Your task to perform on an android device: turn on the 24-hour format for clock Image 0: 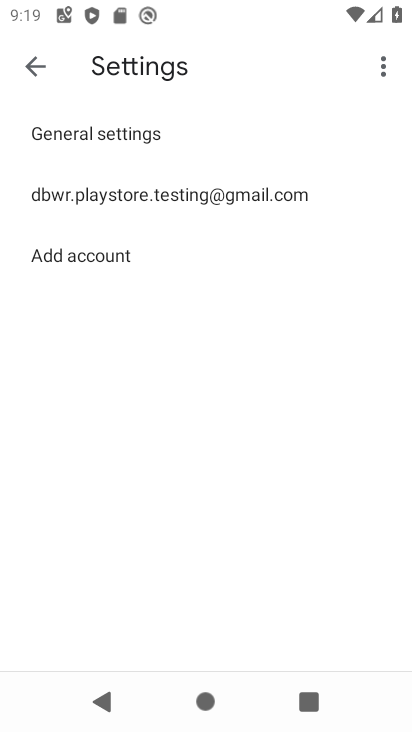
Step 0: press home button
Your task to perform on an android device: turn on the 24-hour format for clock Image 1: 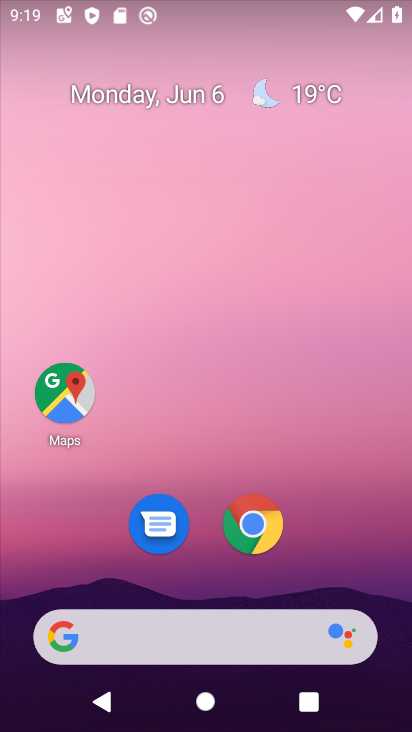
Step 1: drag from (329, 476) to (221, 16)
Your task to perform on an android device: turn on the 24-hour format for clock Image 2: 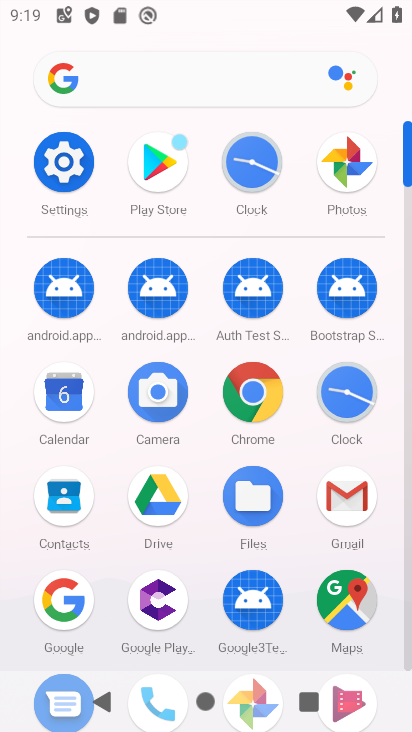
Step 2: click (349, 400)
Your task to perform on an android device: turn on the 24-hour format for clock Image 3: 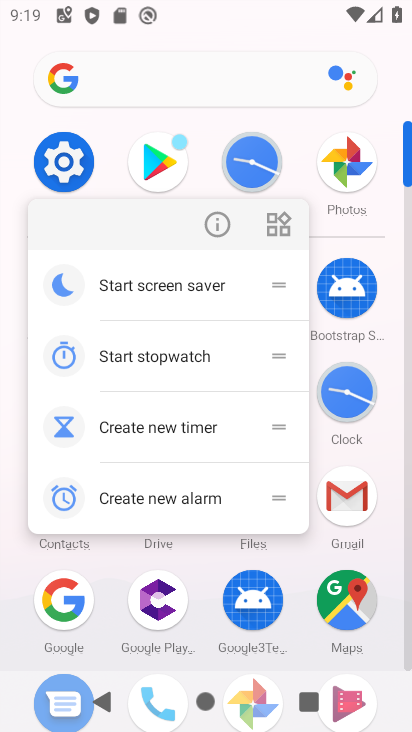
Step 3: click (388, 360)
Your task to perform on an android device: turn on the 24-hour format for clock Image 4: 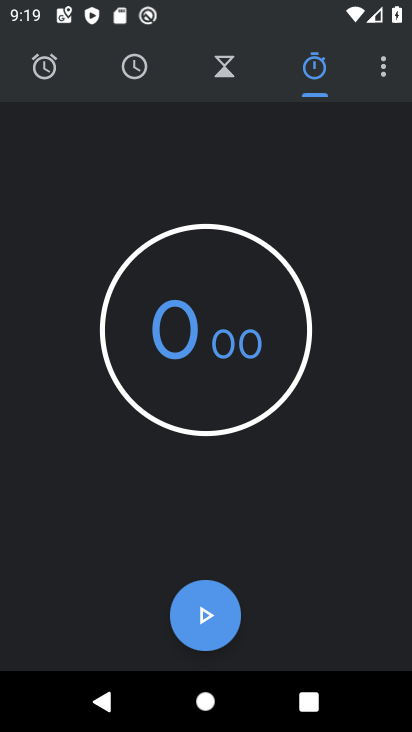
Step 4: click (376, 64)
Your task to perform on an android device: turn on the 24-hour format for clock Image 5: 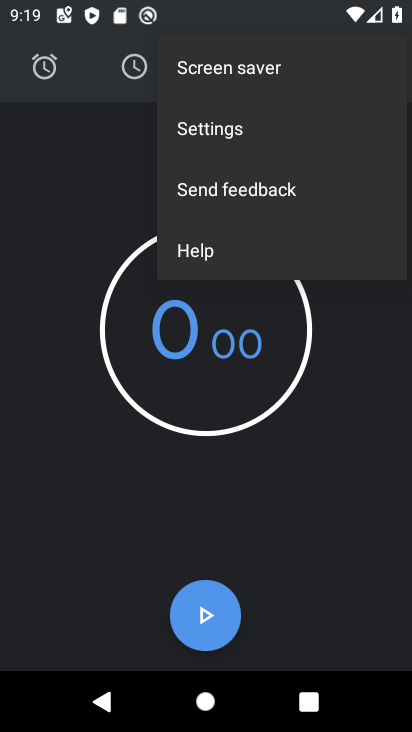
Step 5: click (315, 113)
Your task to perform on an android device: turn on the 24-hour format for clock Image 6: 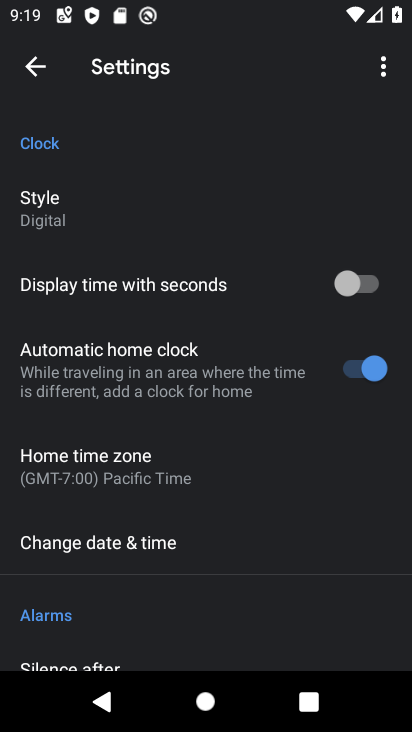
Step 6: click (231, 554)
Your task to perform on an android device: turn on the 24-hour format for clock Image 7: 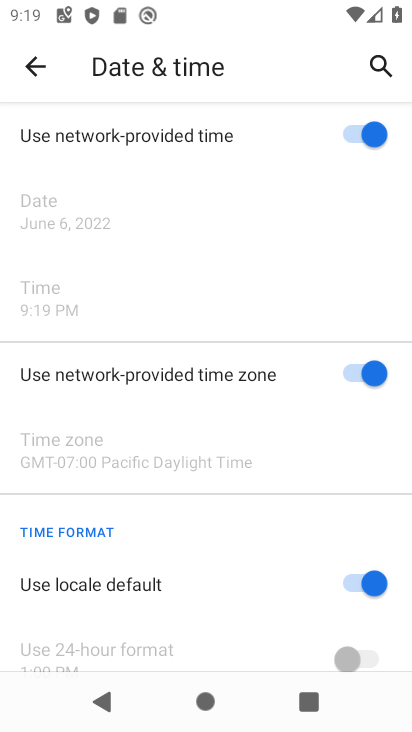
Step 7: click (359, 646)
Your task to perform on an android device: turn on the 24-hour format for clock Image 8: 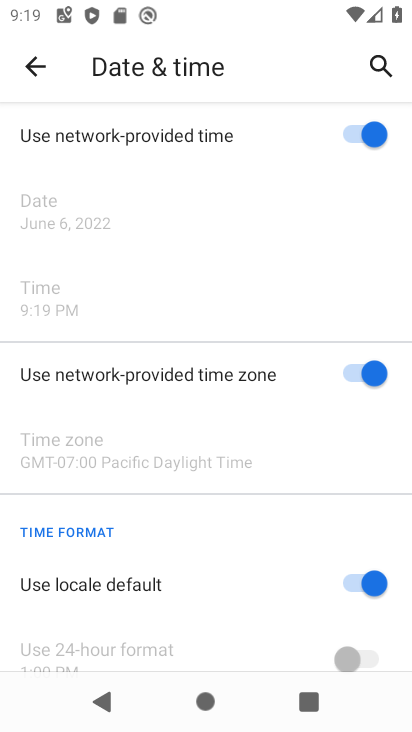
Step 8: click (347, 577)
Your task to perform on an android device: turn on the 24-hour format for clock Image 9: 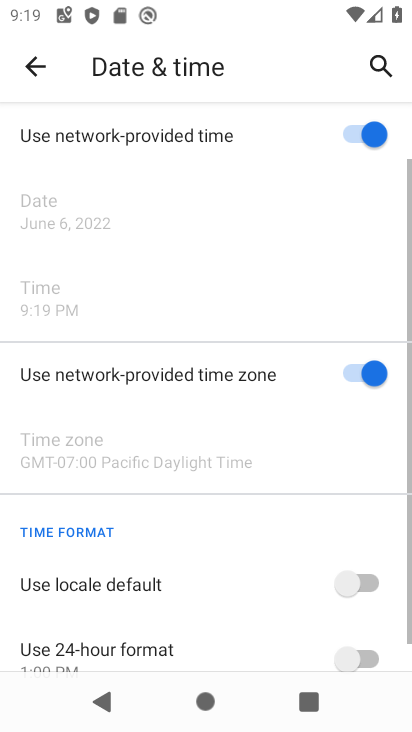
Step 9: click (351, 644)
Your task to perform on an android device: turn on the 24-hour format for clock Image 10: 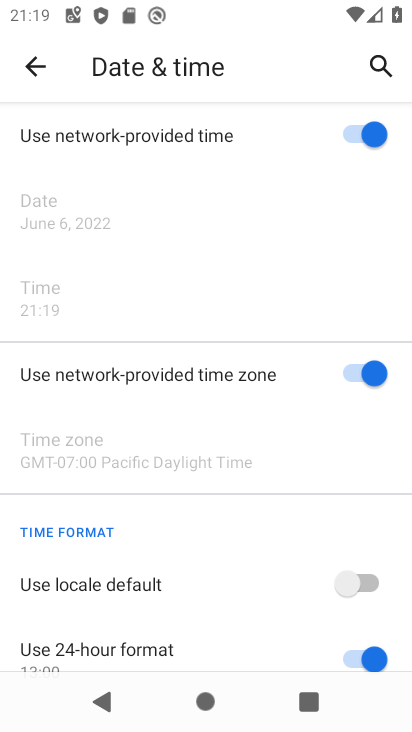
Step 10: task complete